Your task to perform on an android device: What's on my calendar tomorrow? Image 0: 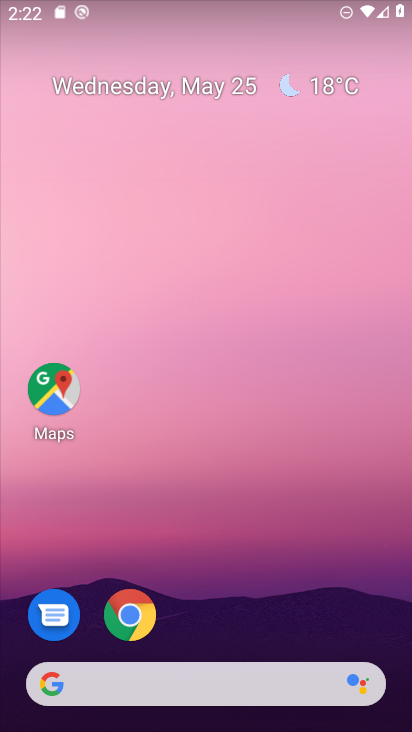
Step 0: drag from (277, 612) to (322, 87)
Your task to perform on an android device: What's on my calendar tomorrow? Image 1: 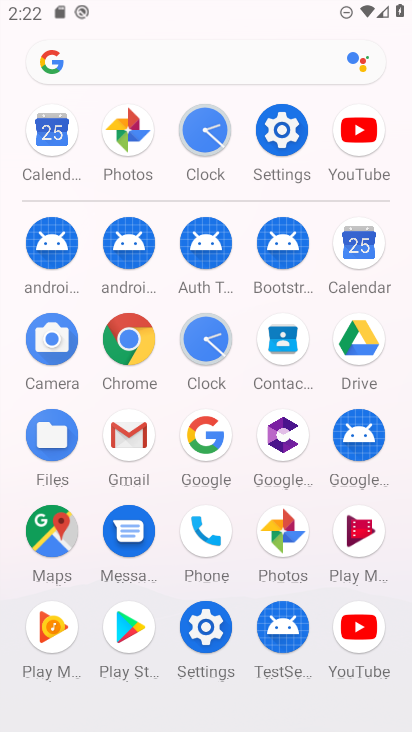
Step 1: click (359, 240)
Your task to perform on an android device: What's on my calendar tomorrow? Image 2: 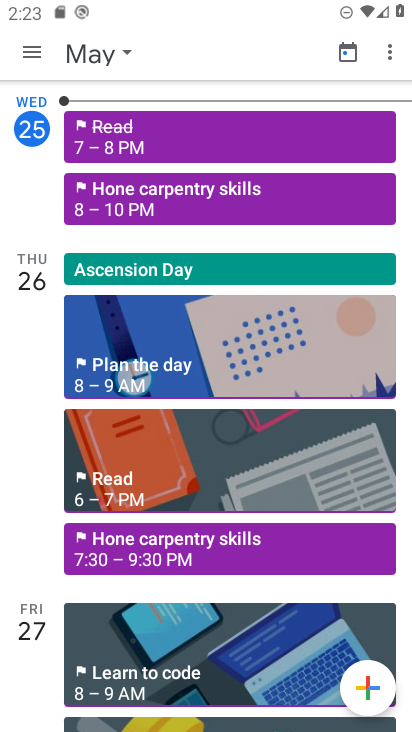
Step 2: task complete